Your task to perform on an android device: manage bookmarks in the chrome app Image 0: 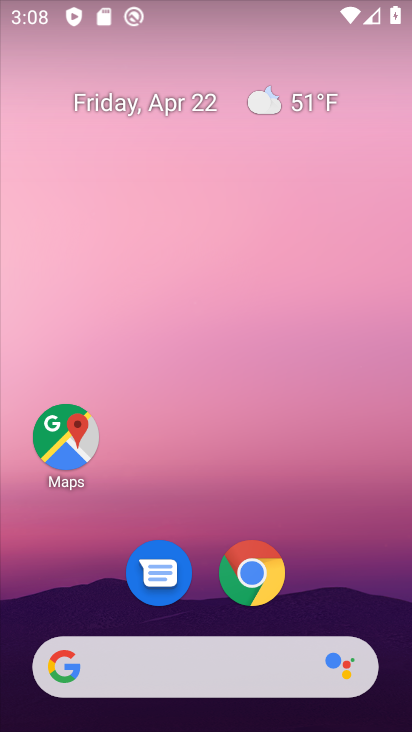
Step 0: click (261, 581)
Your task to perform on an android device: manage bookmarks in the chrome app Image 1: 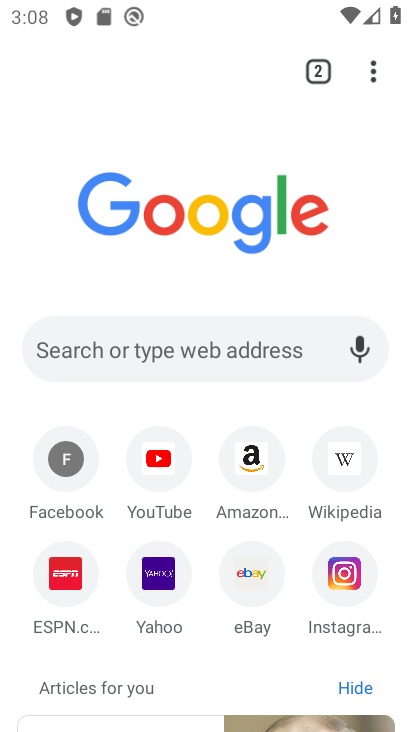
Step 1: click (369, 69)
Your task to perform on an android device: manage bookmarks in the chrome app Image 2: 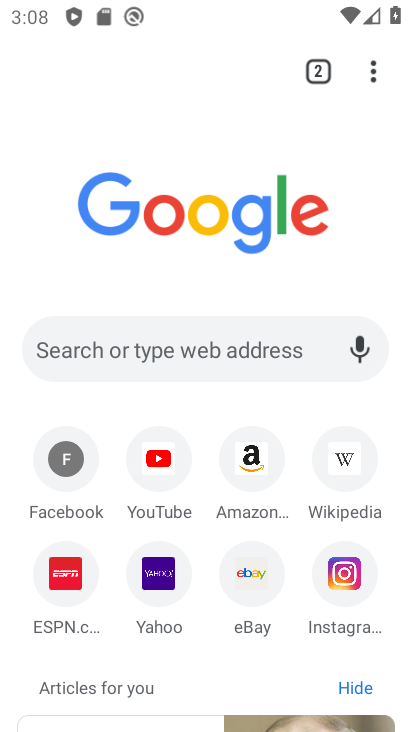
Step 2: click (364, 71)
Your task to perform on an android device: manage bookmarks in the chrome app Image 3: 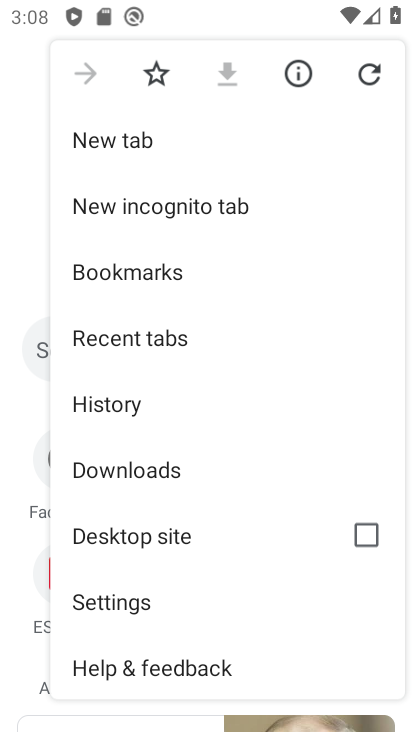
Step 3: click (193, 282)
Your task to perform on an android device: manage bookmarks in the chrome app Image 4: 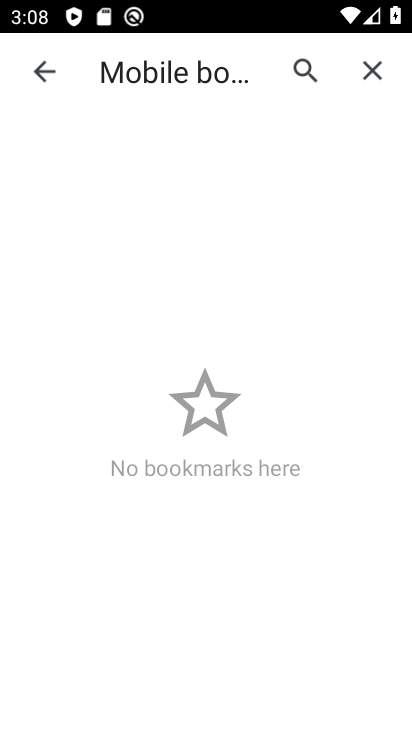
Step 4: task complete